Your task to perform on an android device: Open Google Chrome Image 0: 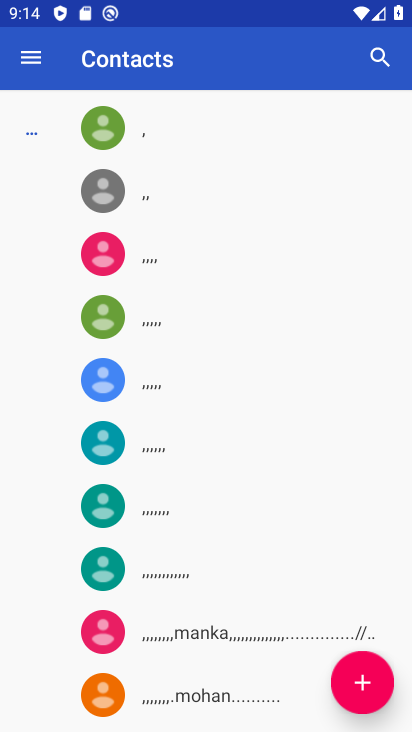
Step 0: press home button
Your task to perform on an android device: Open Google Chrome Image 1: 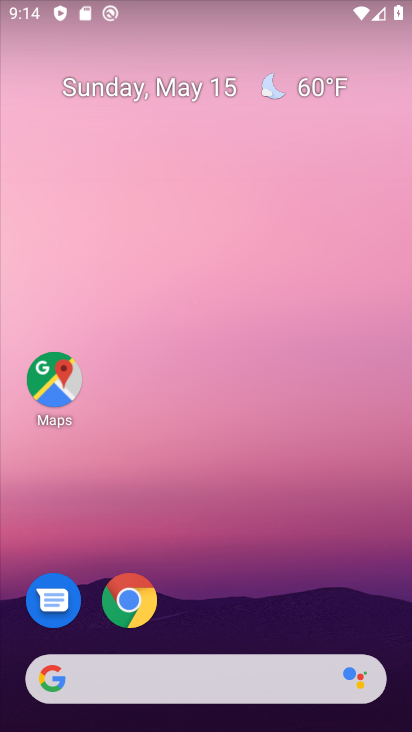
Step 1: click (137, 600)
Your task to perform on an android device: Open Google Chrome Image 2: 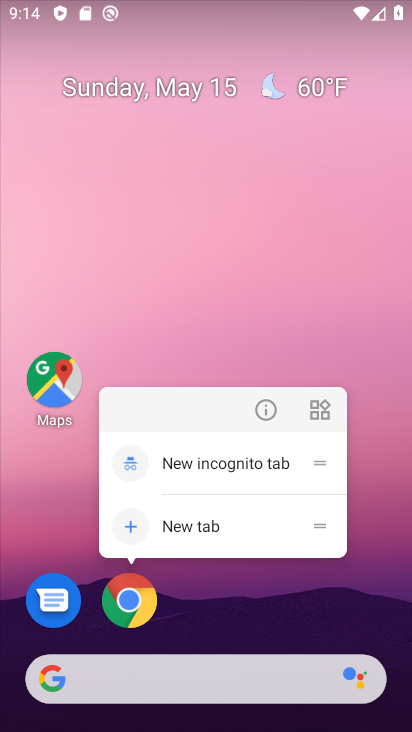
Step 2: click (138, 613)
Your task to perform on an android device: Open Google Chrome Image 3: 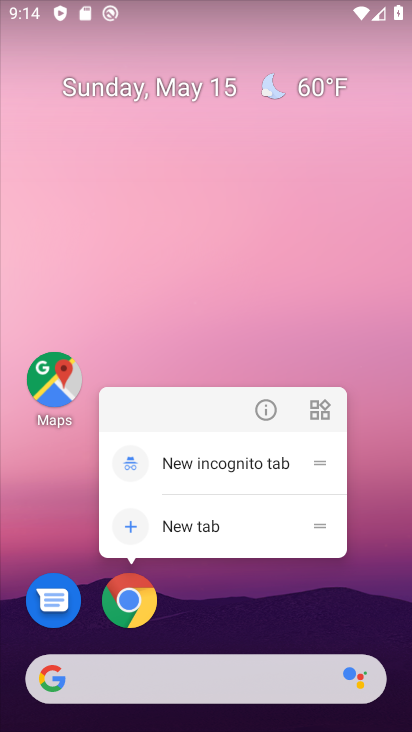
Step 3: click (125, 607)
Your task to perform on an android device: Open Google Chrome Image 4: 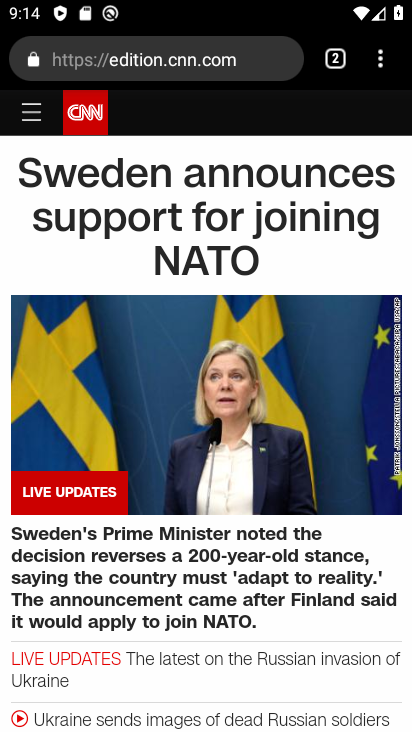
Step 4: task complete